Your task to perform on an android device: turn on priority inbox in the gmail app Image 0: 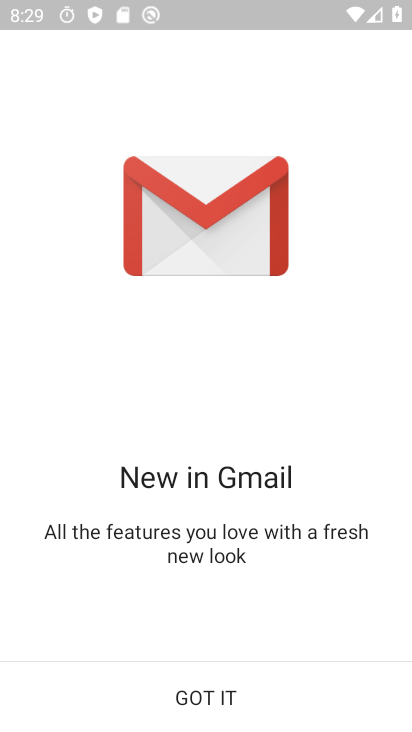
Step 0: click (194, 696)
Your task to perform on an android device: turn on priority inbox in the gmail app Image 1: 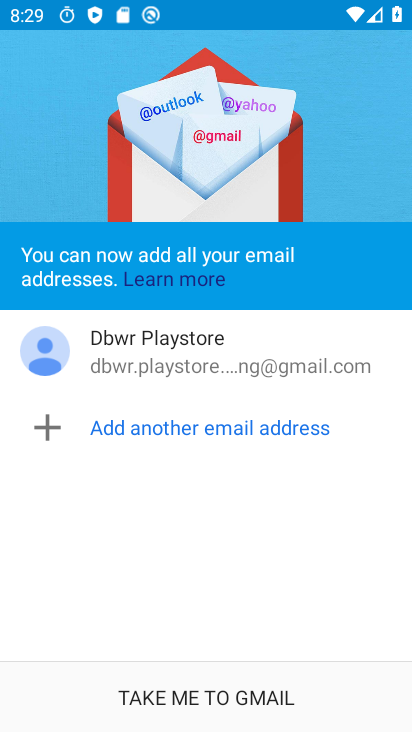
Step 1: click (194, 696)
Your task to perform on an android device: turn on priority inbox in the gmail app Image 2: 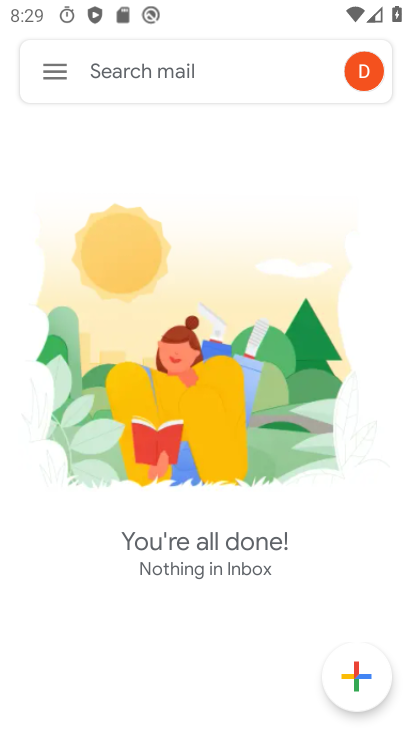
Step 2: click (55, 78)
Your task to perform on an android device: turn on priority inbox in the gmail app Image 3: 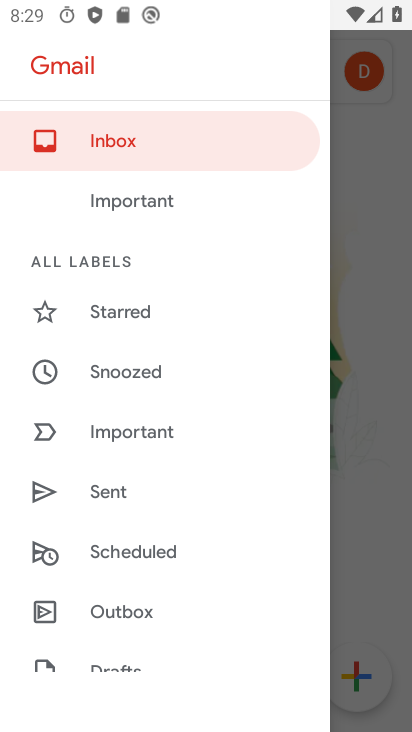
Step 3: drag from (128, 348) to (162, 274)
Your task to perform on an android device: turn on priority inbox in the gmail app Image 4: 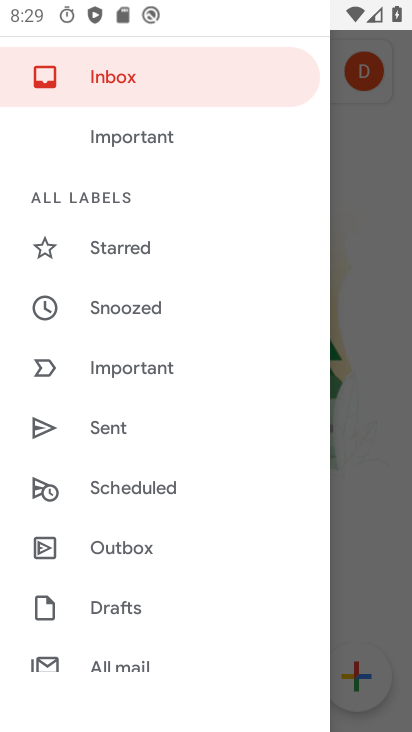
Step 4: drag from (129, 336) to (191, 261)
Your task to perform on an android device: turn on priority inbox in the gmail app Image 5: 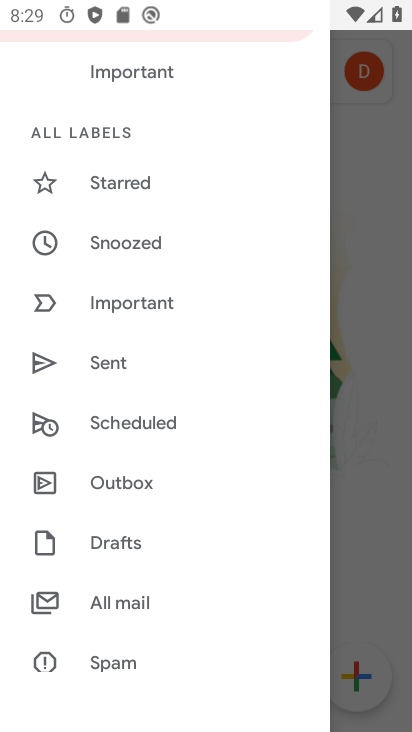
Step 5: drag from (126, 336) to (170, 274)
Your task to perform on an android device: turn on priority inbox in the gmail app Image 6: 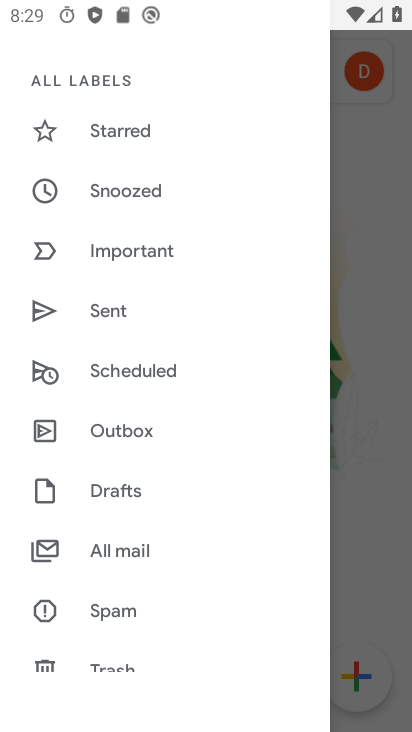
Step 6: drag from (121, 352) to (169, 268)
Your task to perform on an android device: turn on priority inbox in the gmail app Image 7: 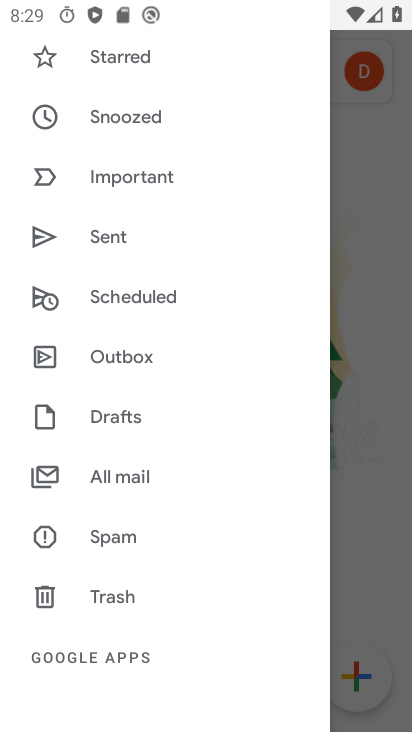
Step 7: drag from (118, 337) to (176, 266)
Your task to perform on an android device: turn on priority inbox in the gmail app Image 8: 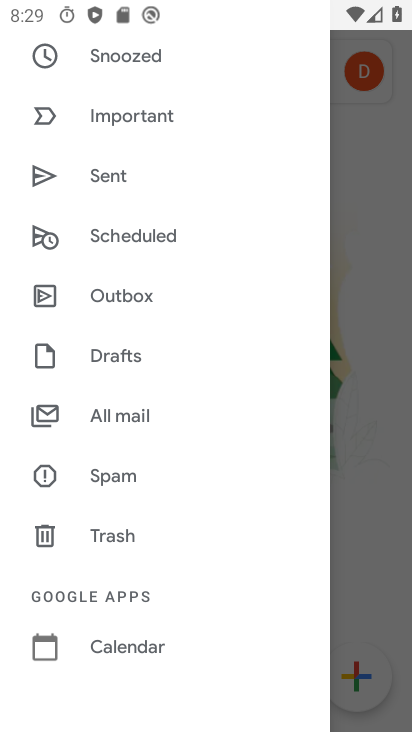
Step 8: drag from (115, 334) to (178, 252)
Your task to perform on an android device: turn on priority inbox in the gmail app Image 9: 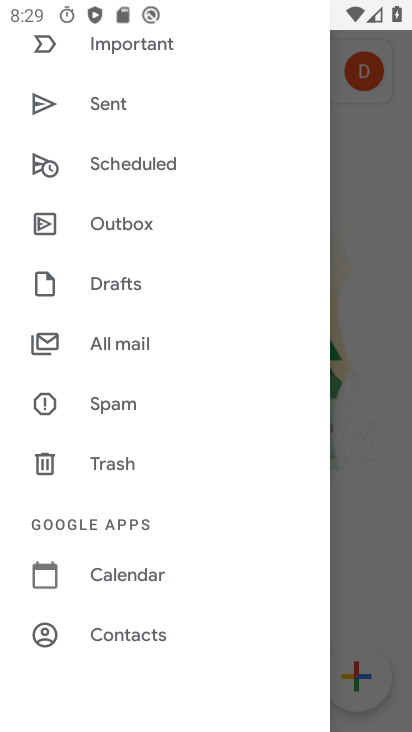
Step 9: drag from (99, 380) to (161, 307)
Your task to perform on an android device: turn on priority inbox in the gmail app Image 10: 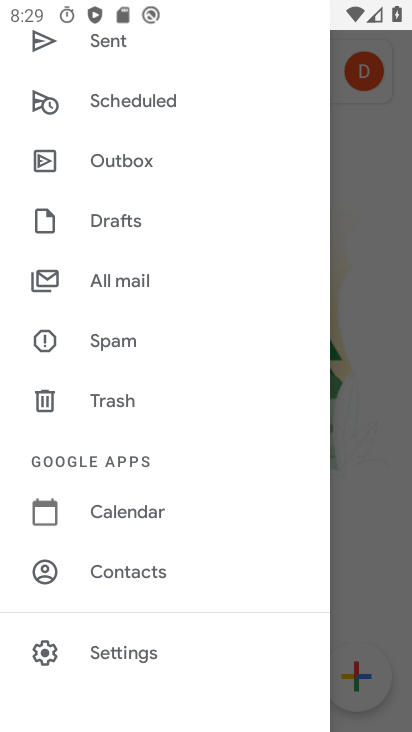
Step 10: drag from (103, 382) to (169, 314)
Your task to perform on an android device: turn on priority inbox in the gmail app Image 11: 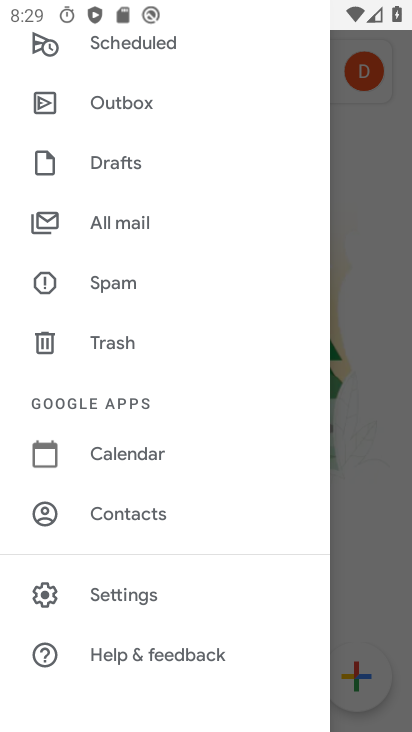
Step 11: drag from (113, 429) to (185, 359)
Your task to perform on an android device: turn on priority inbox in the gmail app Image 12: 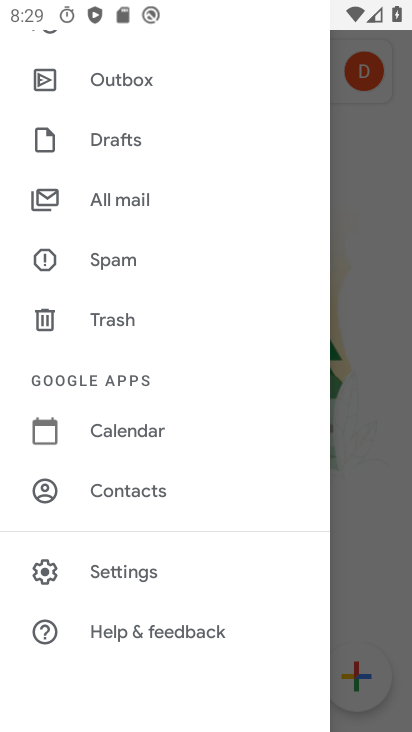
Step 12: click (127, 564)
Your task to perform on an android device: turn on priority inbox in the gmail app Image 13: 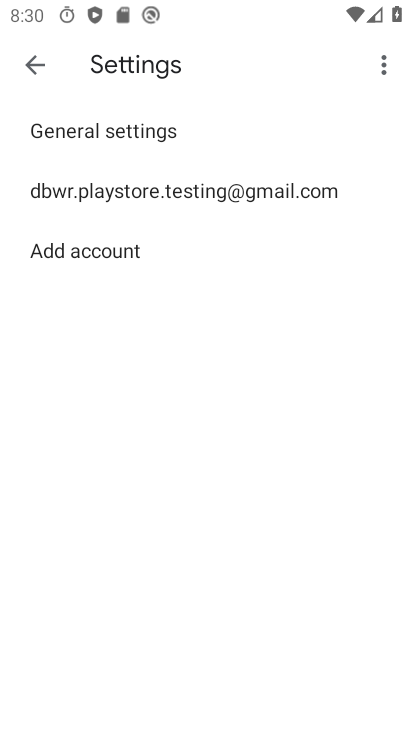
Step 13: click (162, 194)
Your task to perform on an android device: turn on priority inbox in the gmail app Image 14: 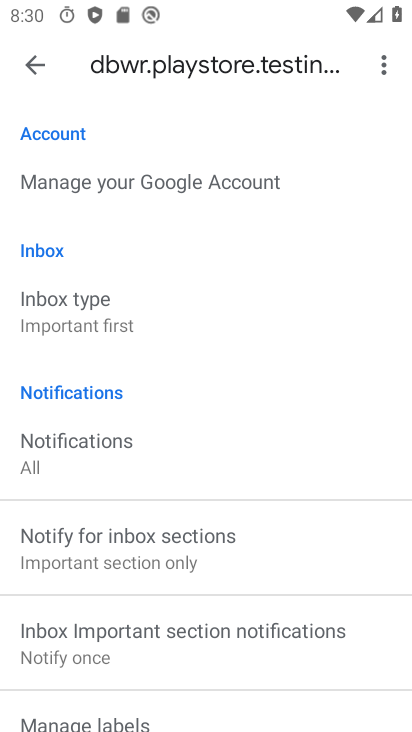
Step 14: click (88, 309)
Your task to perform on an android device: turn on priority inbox in the gmail app Image 15: 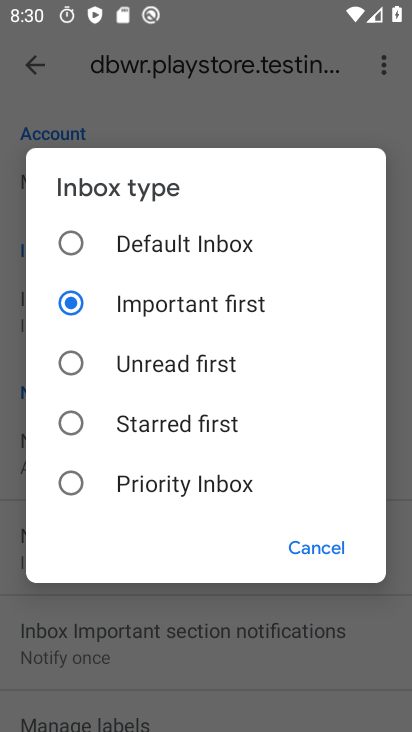
Step 15: click (78, 484)
Your task to perform on an android device: turn on priority inbox in the gmail app Image 16: 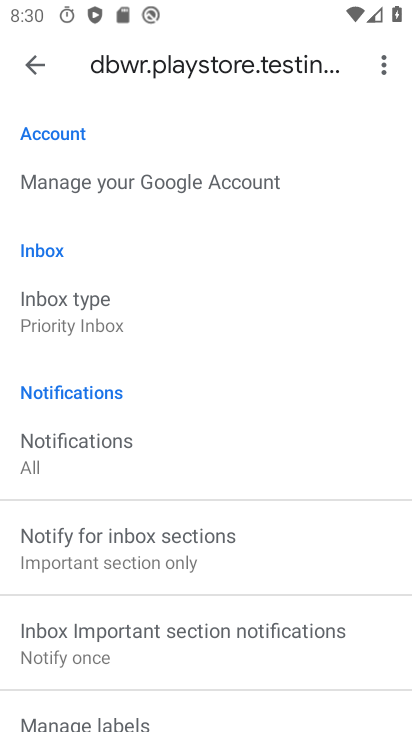
Step 16: task complete